Your task to perform on an android device: star an email in the gmail app Image 0: 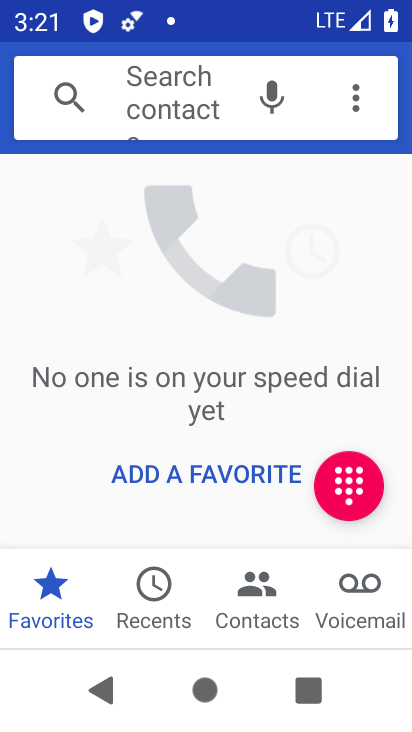
Step 0: press back button
Your task to perform on an android device: star an email in the gmail app Image 1: 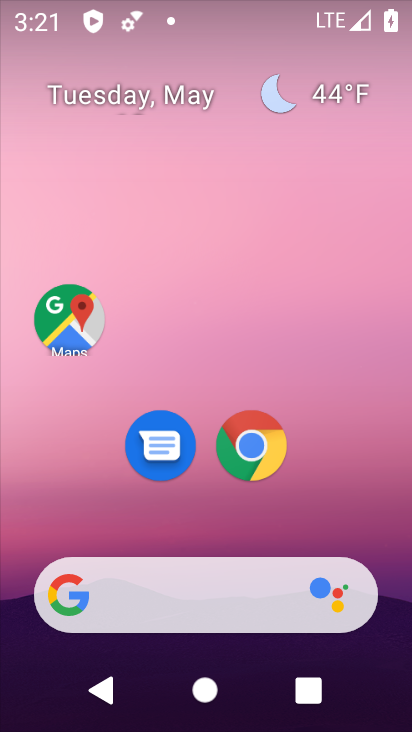
Step 1: drag from (194, 501) to (333, 18)
Your task to perform on an android device: star an email in the gmail app Image 2: 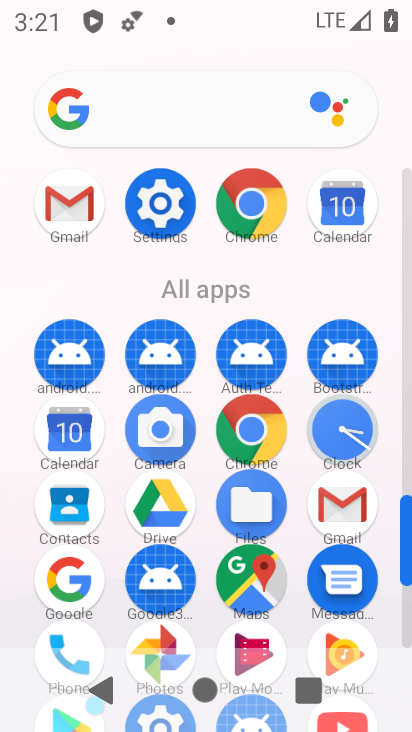
Step 2: click (65, 206)
Your task to perform on an android device: star an email in the gmail app Image 3: 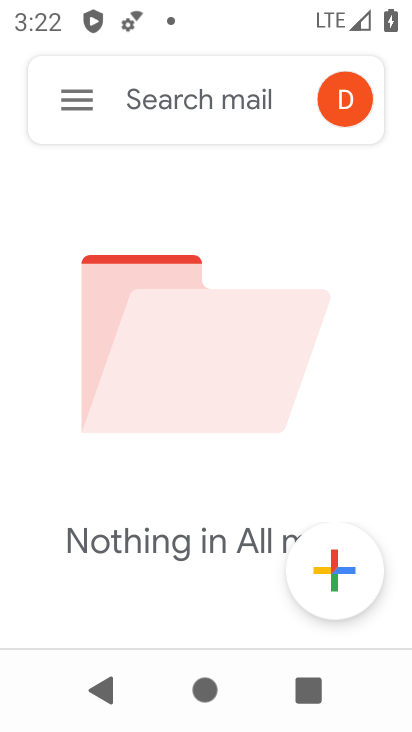
Step 3: task complete